Your task to perform on an android device: turn vacation reply on in the gmail app Image 0: 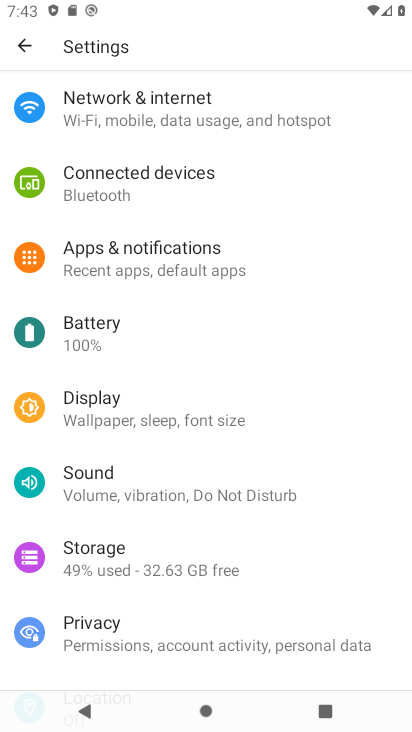
Step 0: press home button
Your task to perform on an android device: turn vacation reply on in the gmail app Image 1: 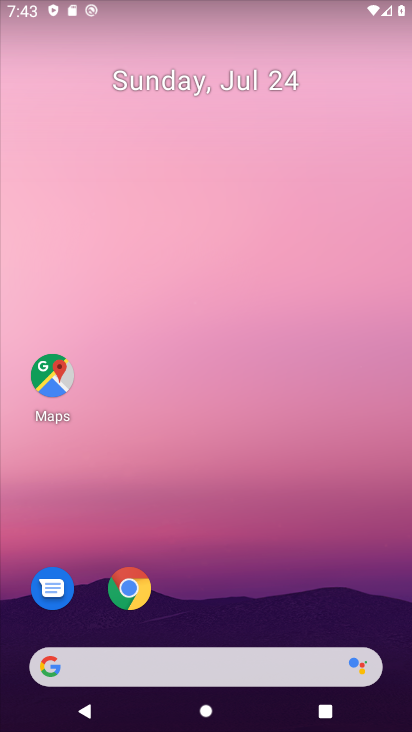
Step 1: drag from (124, 653) to (205, 0)
Your task to perform on an android device: turn vacation reply on in the gmail app Image 2: 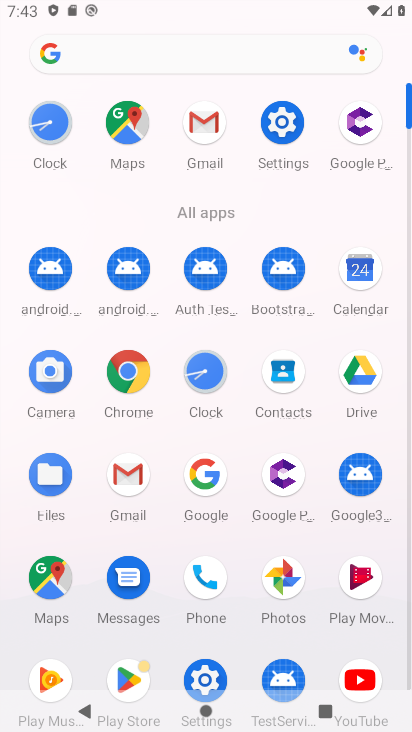
Step 2: click (142, 473)
Your task to perform on an android device: turn vacation reply on in the gmail app Image 3: 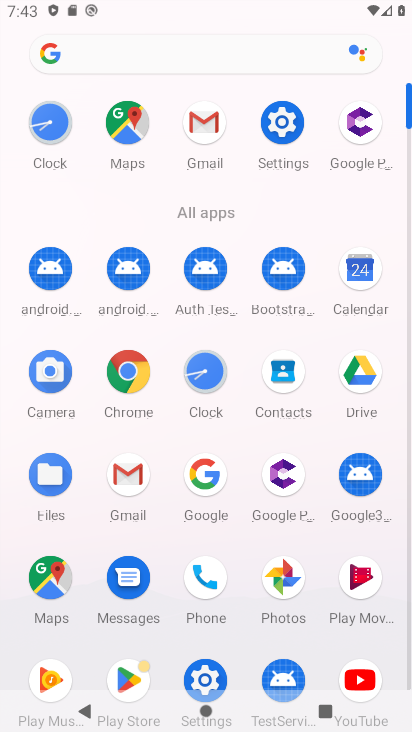
Step 3: click (142, 473)
Your task to perform on an android device: turn vacation reply on in the gmail app Image 4: 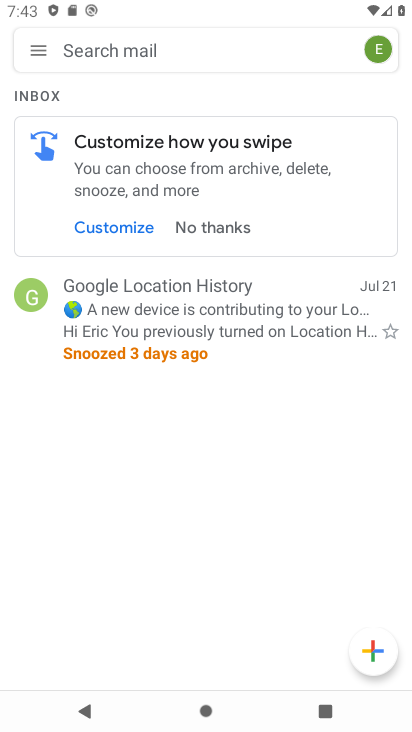
Step 4: click (31, 50)
Your task to perform on an android device: turn vacation reply on in the gmail app Image 5: 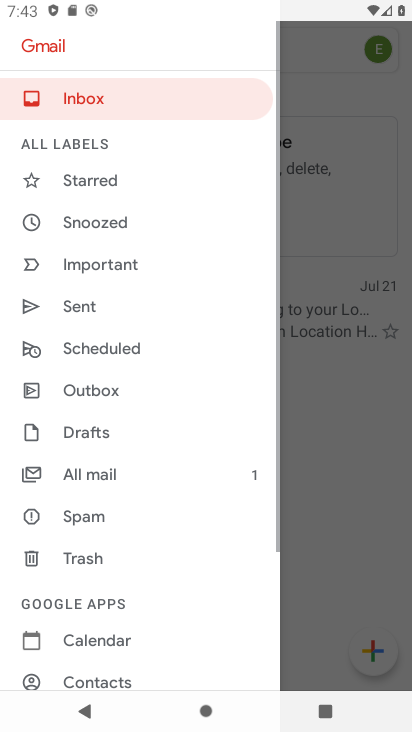
Step 5: drag from (116, 571) to (241, 12)
Your task to perform on an android device: turn vacation reply on in the gmail app Image 6: 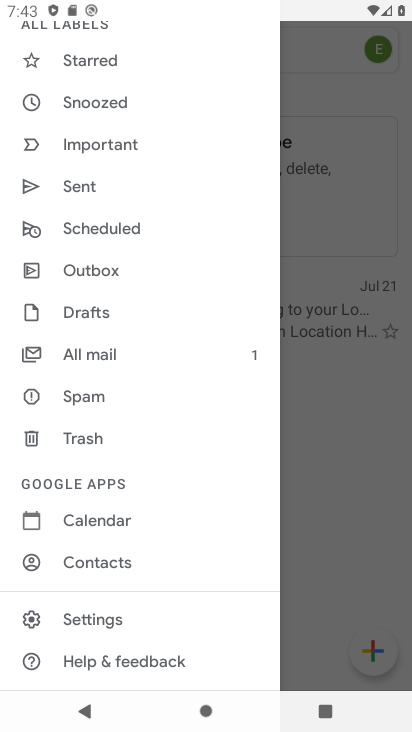
Step 6: click (89, 614)
Your task to perform on an android device: turn vacation reply on in the gmail app Image 7: 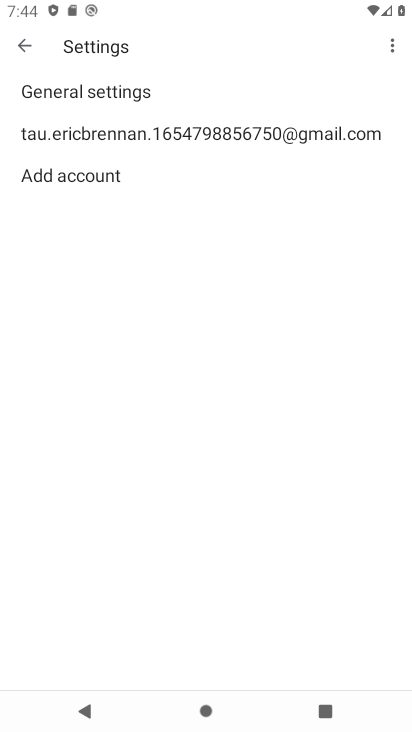
Step 7: click (171, 131)
Your task to perform on an android device: turn vacation reply on in the gmail app Image 8: 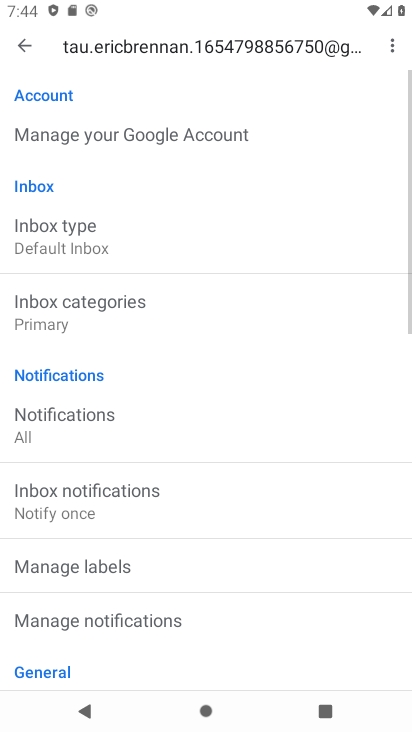
Step 8: drag from (303, 588) to (342, 8)
Your task to perform on an android device: turn vacation reply on in the gmail app Image 9: 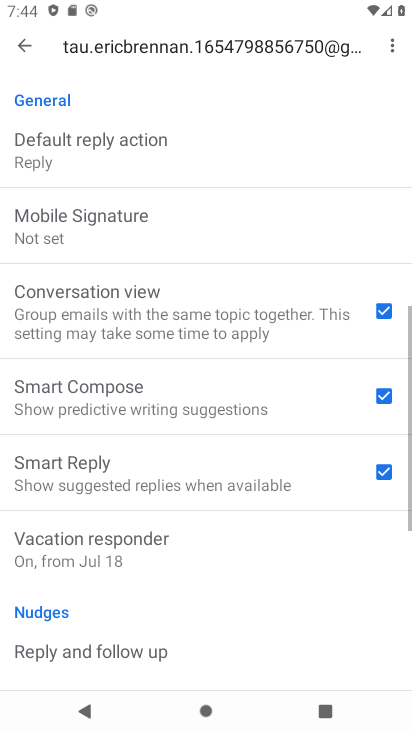
Step 9: click (119, 538)
Your task to perform on an android device: turn vacation reply on in the gmail app Image 10: 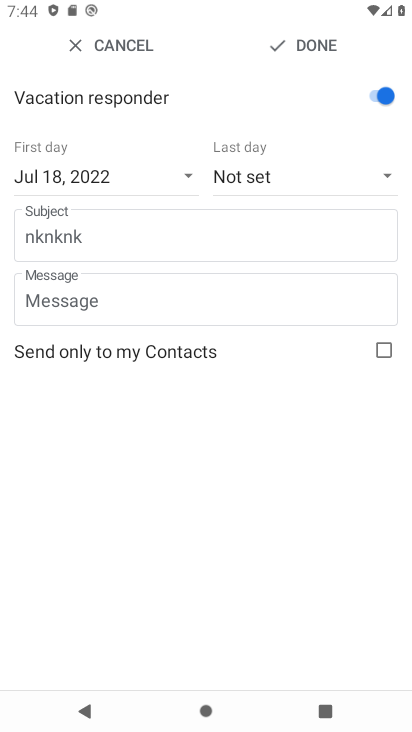
Step 10: click (318, 46)
Your task to perform on an android device: turn vacation reply on in the gmail app Image 11: 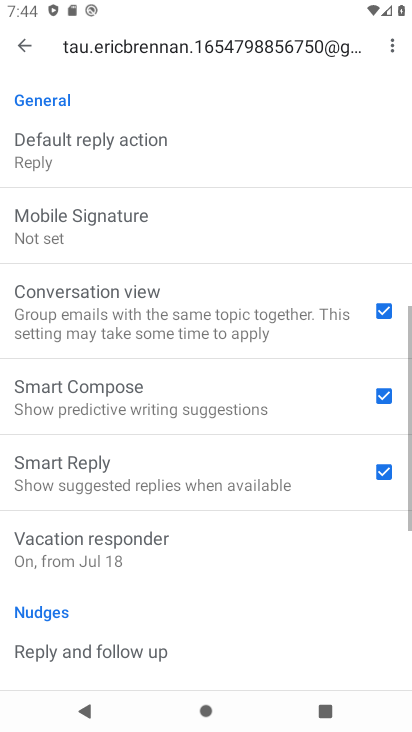
Step 11: task complete